Your task to perform on an android device: see creations saved in the google photos Image 0: 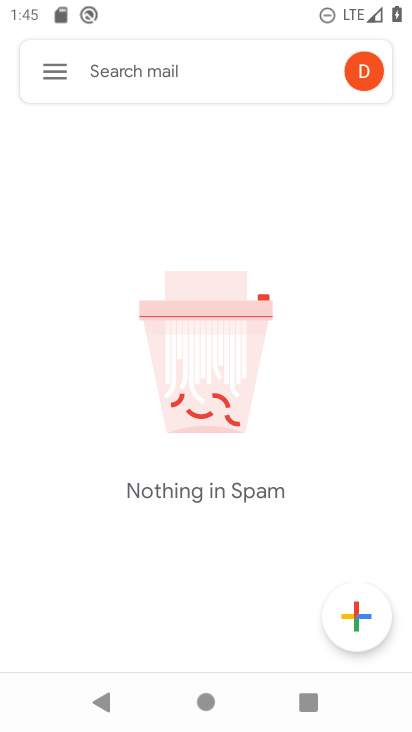
Step 0: press home button
Your task to perform on an android device: see creations saved in the google photos Image 1: 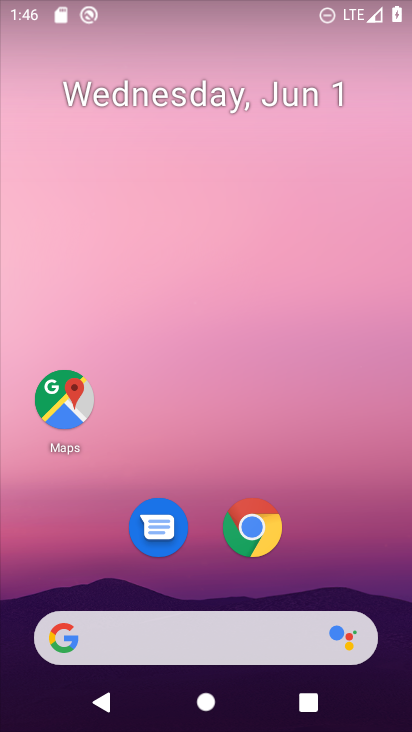
Step 1: drag from (149, 705) to (175, 128)
Your task to perform on an android device: see creations saved in the google photos Image 2: 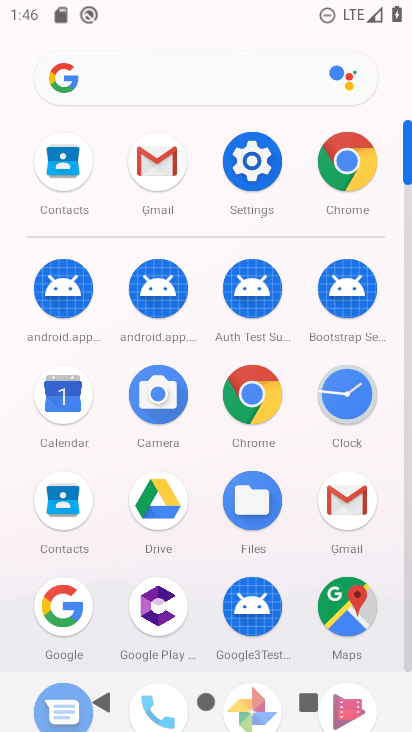
Step 2: drag from (299, 652) to (294, 279)
Your task to perform on an android device: see creations saved in the google photos Image 3: 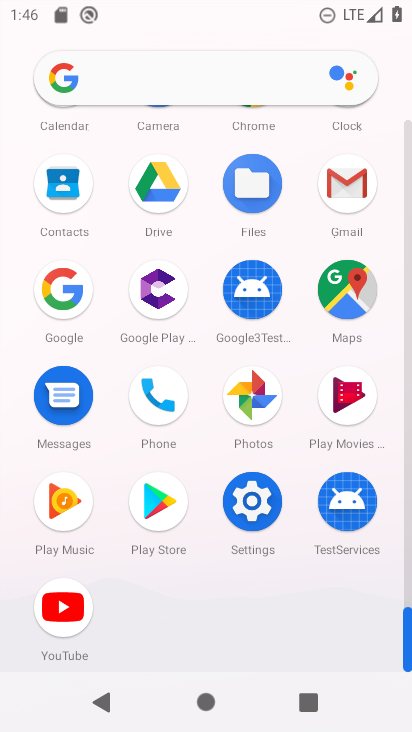
Step 3: click (252, 403)
Your task to perform on an android device: see creations saved in the google photos Image 4: 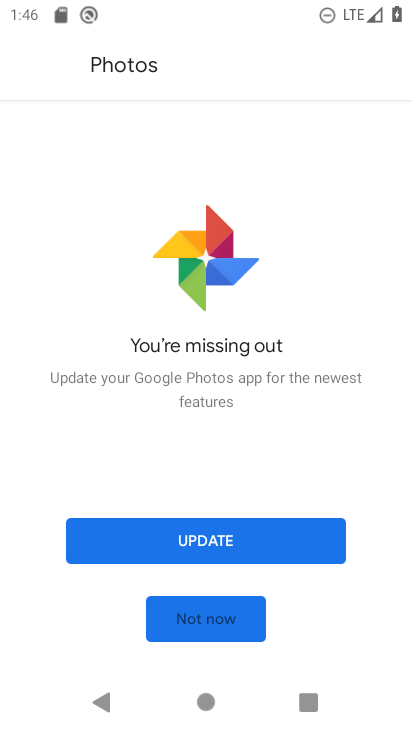
Step 4: click (234, 550)
Your task to perform on an android device: see creations saved in the google photos Image 5: 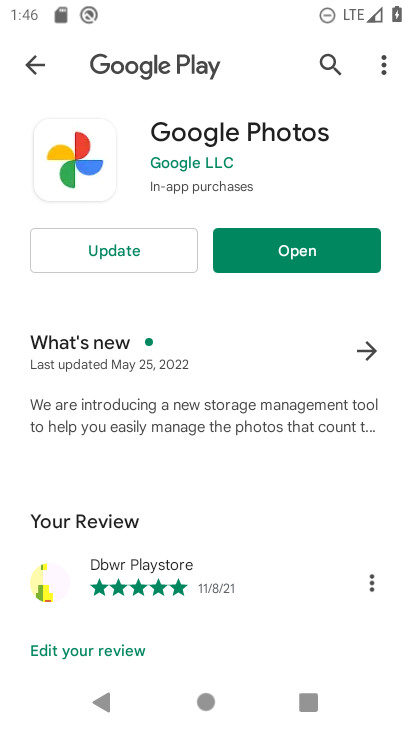
Step 5: click (138, 251)
Your task to perform on an android device: see creations saved in the google photos Image 6: 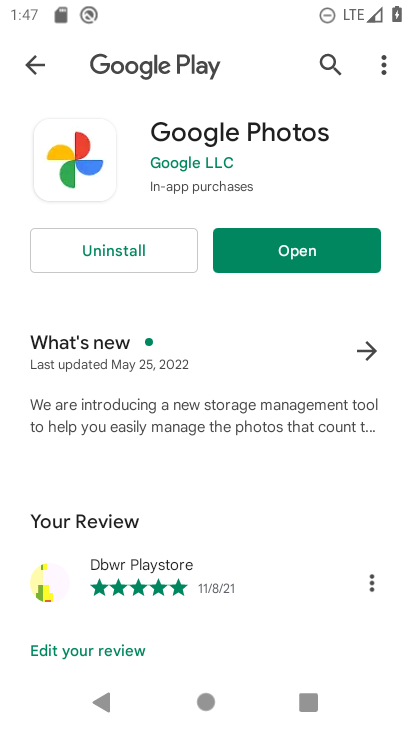
Step 6: click (262, 242)
Your task to perform on an android device: see creations saved in the google photos Image 7: 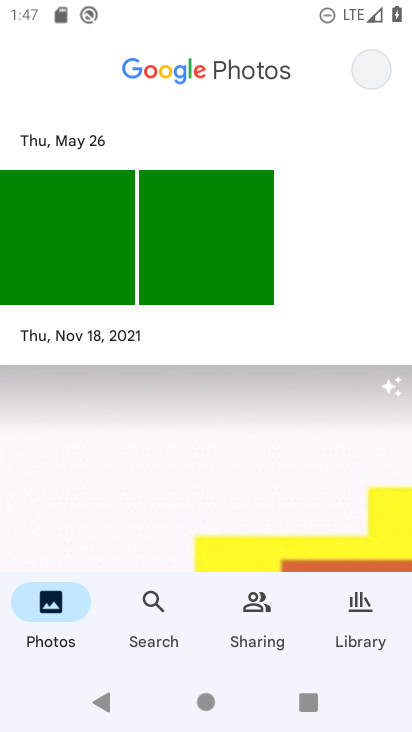
Step 7: click (152, 586)
Your task to perform on an android device: see creations saved in the google photos Image 8: 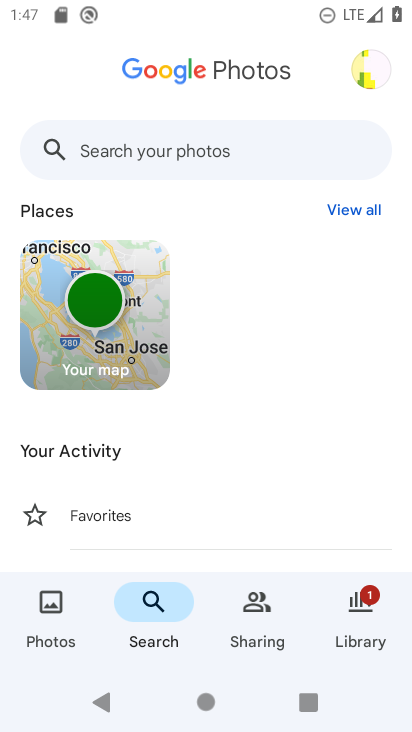
Step 8: click (145, 140)
Your task to perform on an android device: see creations saved in the google photos Image 9: 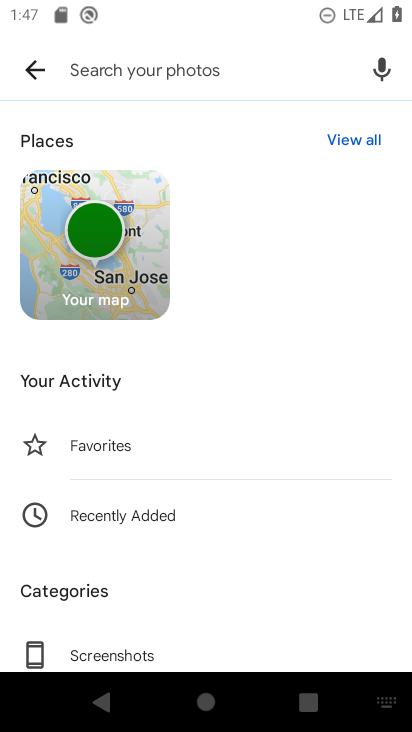
Step 9: drag from (160, 263) to (165, 166)
Your task to perform on an android device: see creations saved in the google photos Image 10: 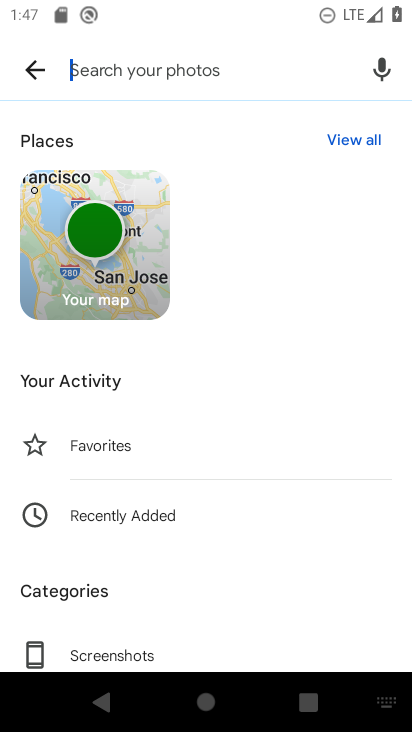
Step 10: drag from (130, 618) to (121, 37)
Your task to perform on an android device: see creations saved in the google photos Image 11: 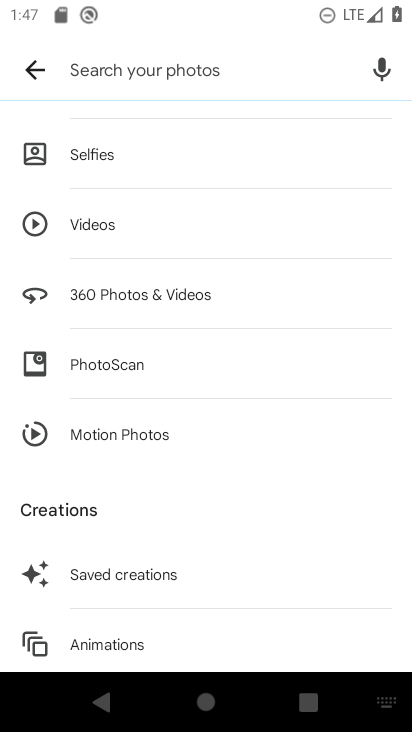
Step 11: click (118, 581)
Your task to perform on an android device: see creations saved in the google photos Image 12: 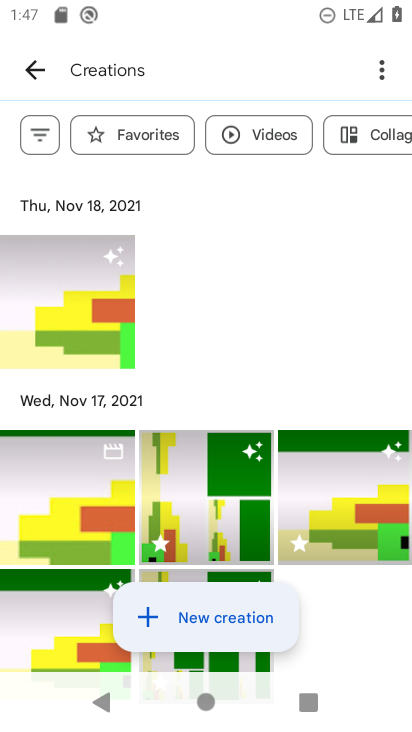
Step 12: task complete